Your task to perform on an android device: clear all cookies in the chrome app Image 0: 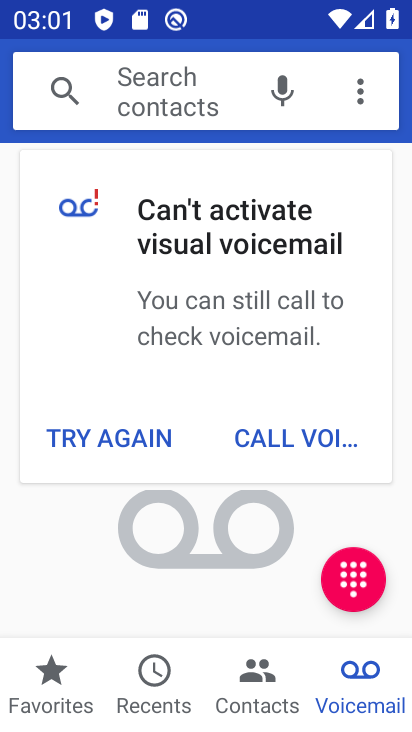
Step 0: press back button
Your task to perform on an android device: clear all cookies in the chrome app Image 1: 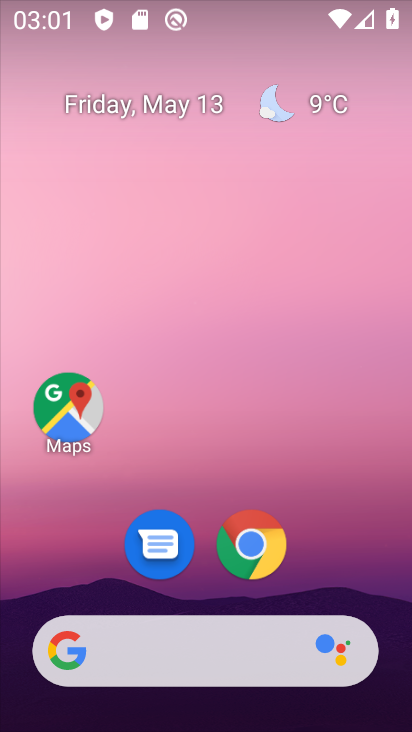
Step 1: drag from (321, 552) to (281, 20)
Your task to perform on an android device: clear all cookies in the chrome app Image 2: 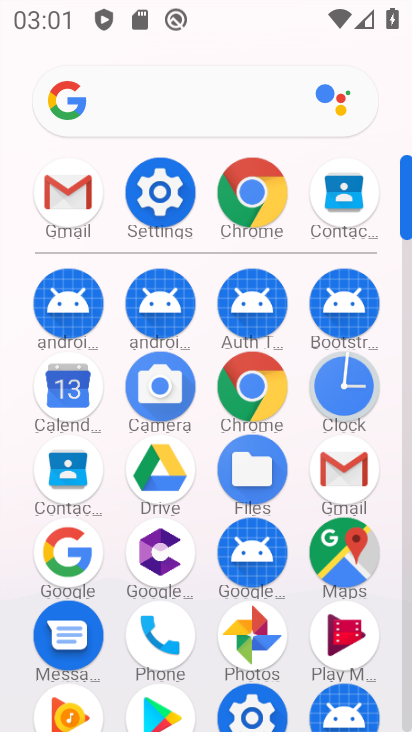
Step 2: drag from (22, 570) to (38, 320)
Your task to perform on an android device: clear all cookies in the chrome app Image 3: 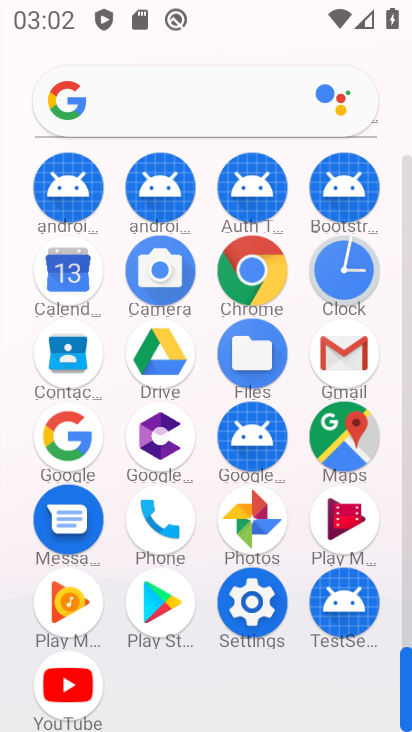
Step 3: click (248, 263)
Your task to perform on an android device: clear all cookies in the chrome app Image 4: 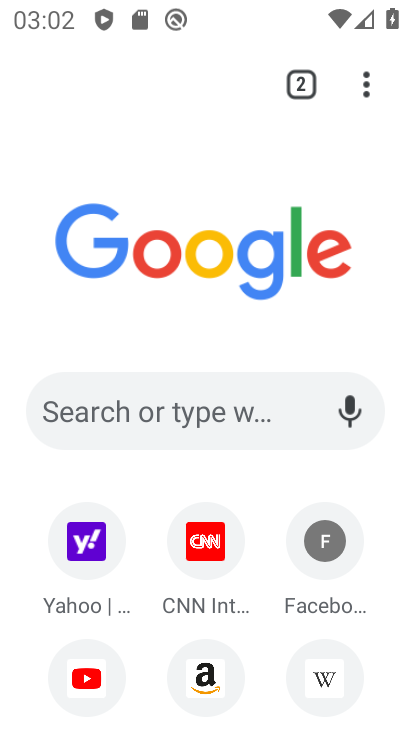
Step 4: drag from (367, 85) to (139, 585)
Your task to perform on an android device: clear all cookies in the chrome app Image 5: 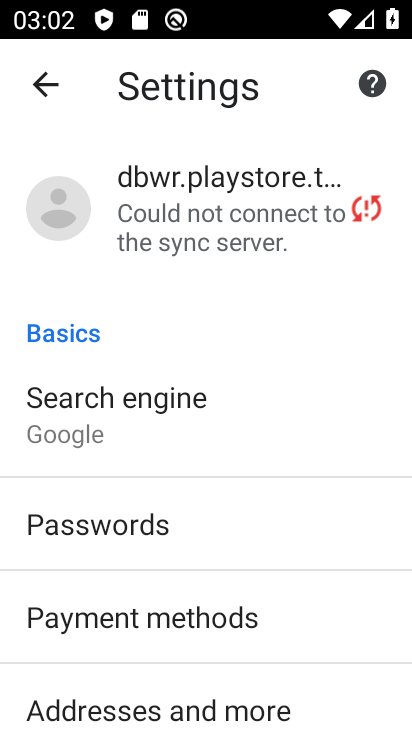
Step 5: drag from (222, 542) to (216, 199)
Your task to perform on an android device: clear all cookies in the chrome app Image 6: 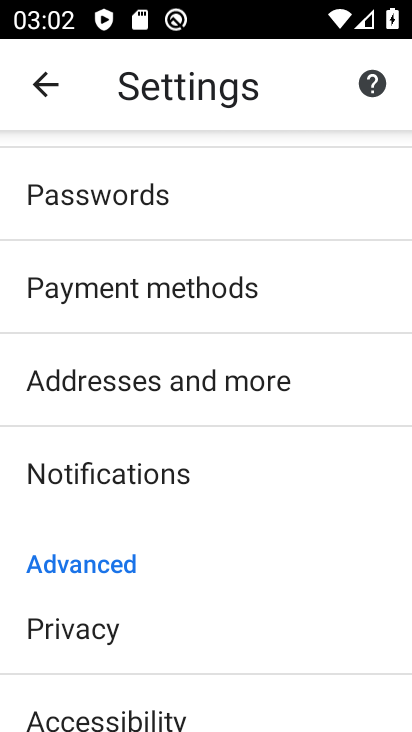
Step 6: drag from (233, 512) to (236, 268)
Your task to perform on an android device: clear all cookies in the chrome app Image 7: 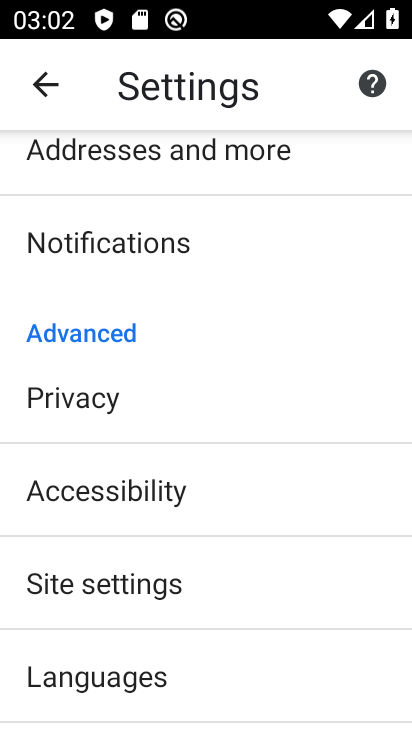
Step 7: drag from (222, 534) to (222, 232)
Your task to perform on an android device: clear all cookies in the chrome app Image 8: 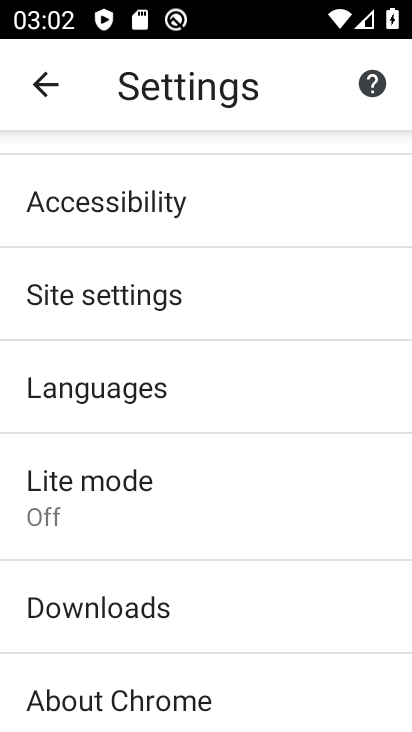
Step 8: drag from (187, 594) to (241, 203)
Your task to perform on an android device: clear all cookies in the chrome app Image 9: 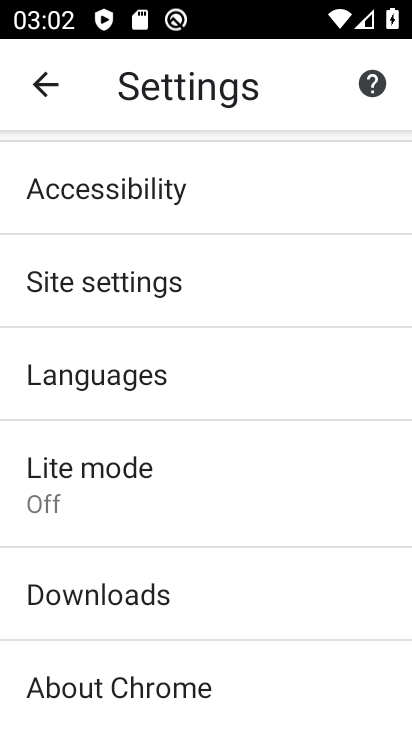
Step 9: drag from (241, 377) to (250, 639)
Your task to perform on an android device: clear all cookies in the chrome app Image 10: 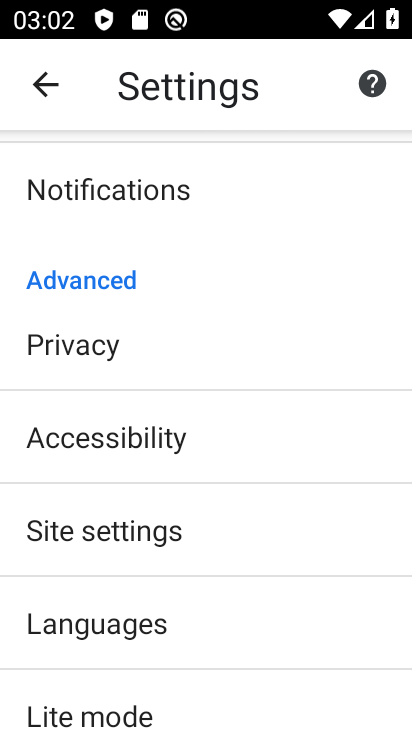
Step 10: drag from (243, 274) to (245, 636)
Your task to perform on an android device: clear all cookies in the chrome app Image 11: 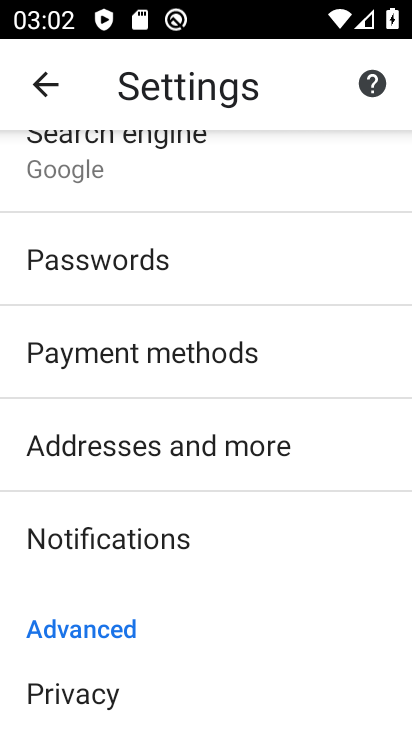
Step 11: drag from (258, 302) to (228, 608)
Your task to perform on an android device: clear all cookies in the chrome app Image 12: 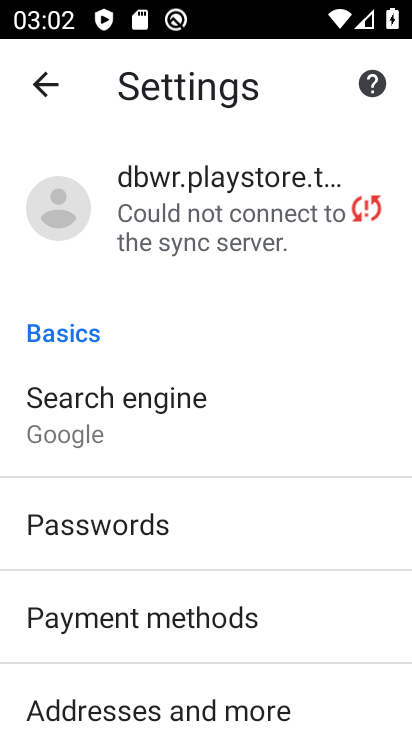
Step 12: drag from (279, 330) to (266, 607)
Your task to perform on an android device: clear all cookies in the chrome app Image 13: 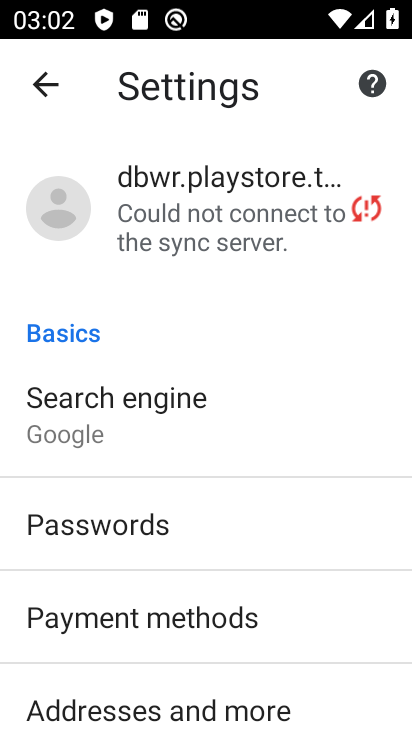
Step 13: drag from (251, 578) to (246, 217)
Your task to perform on an android device: clear all cookies in the chrome app Image 14: 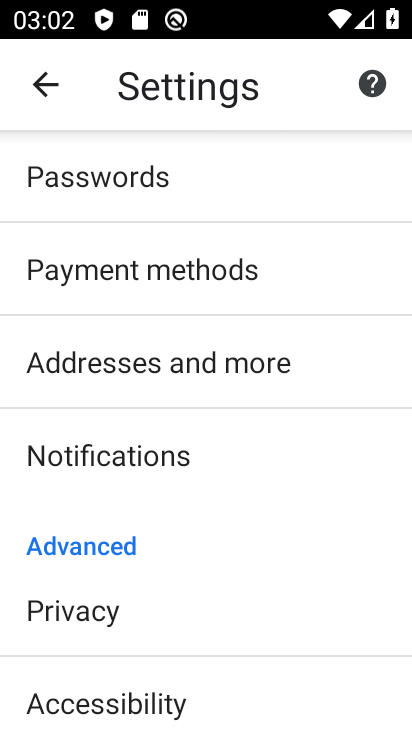
Step 14: drag from (247, 209) to (248, 586)
Your task to perform on an android device: clear all cookies in the chrome app Image 15: 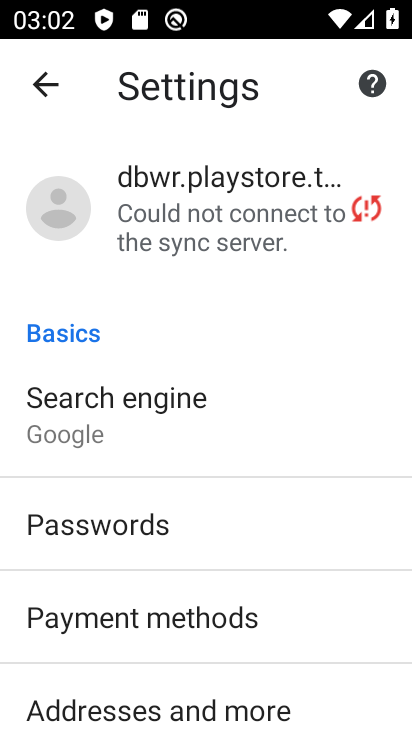
Step 15: drag from (204, 646) to (249, 168)
Your task to perform on an android device: clear all cookies in the chrome app Image 16: 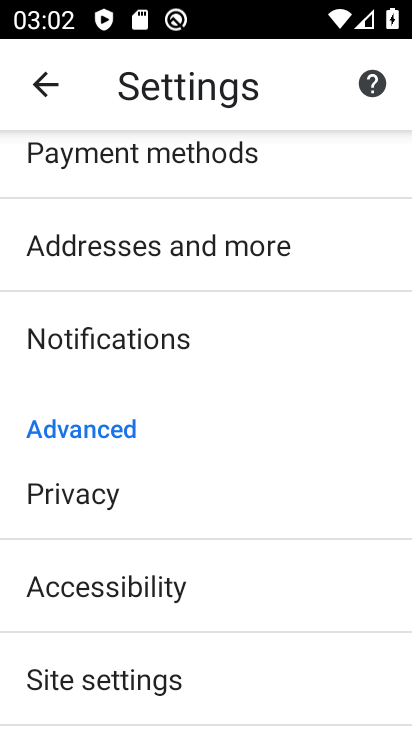
Step 16: click (105, 480)
Your task to perform on an android device: clear all cookies in the chrome app Image 17: 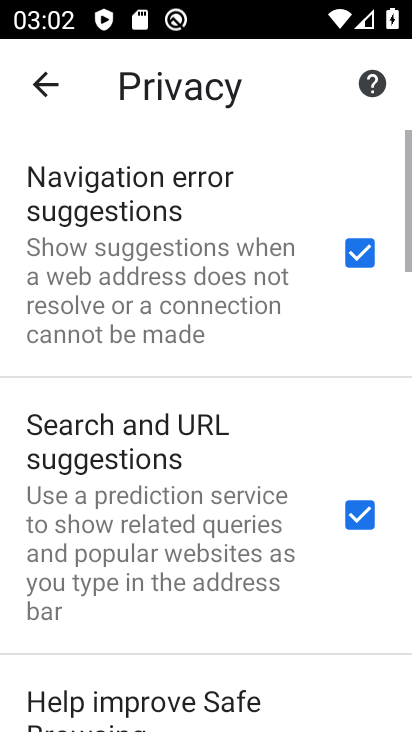
Step 17: drag from (176, 558) to (217, 136)
Your task to perform on an android device: clear all cookies in the chrome app Image 18: 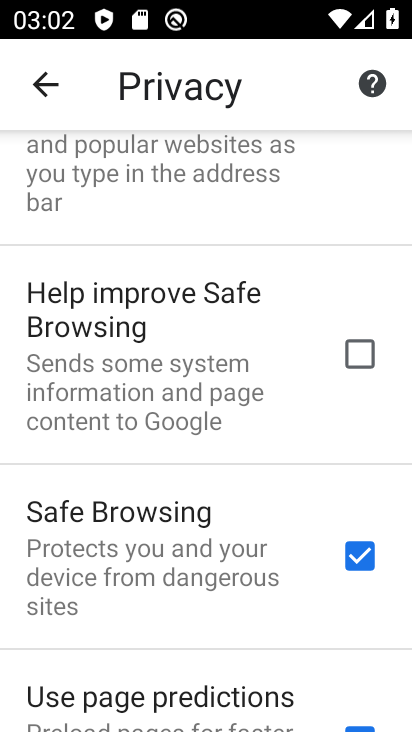
Step 18: drag from (176, 594) to (183, 166)
Your task to perform on an android device: clear all cookies in the chrome app Image 19: 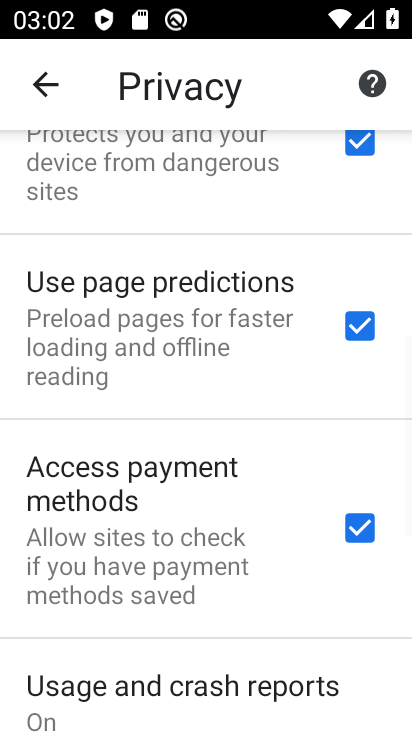
Step 19: drag from (158, 583) to (190, 153)
Your task to perform on an android device: clear all cookies in the chrome app Image 20: 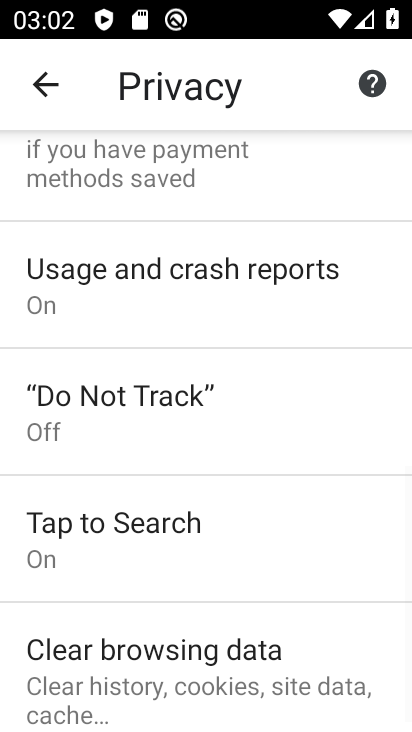
Step 20: drag from (203, 554) to (212, 167)
Your task to perform on an android device: clear all cookies in the chrome app Image 21: 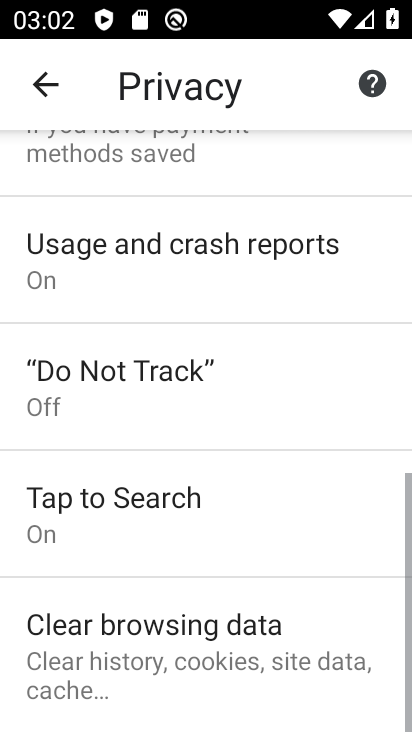
Step 21: click (137, 675)
Your task to perform on an android device: clear all cookies in the chrome app Image 22: 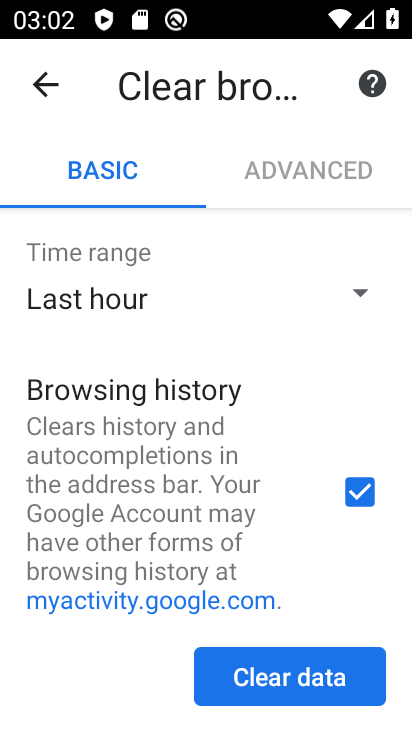
Step 22: drag from (133, 565) to (164, 264)
Your task to perform on an android device: clear all cookies in the chrome app Image 23: 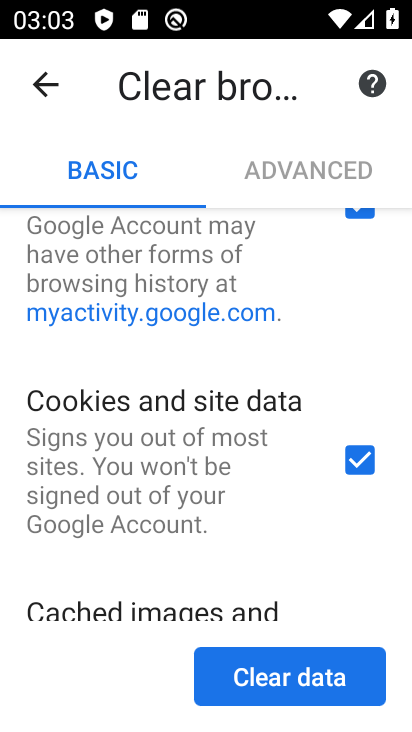
Step 23: drag from (191, 338) to (186, 552)
Your task to perform on an android device: clear all cookies in the chrome app Image 24: 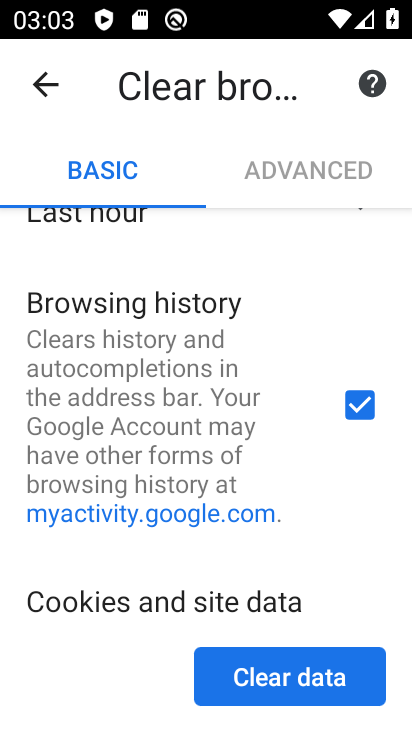
Step 24: click (352, 412)
Your task to perform on an android device: clear all cookies in the chrome app Image 25: 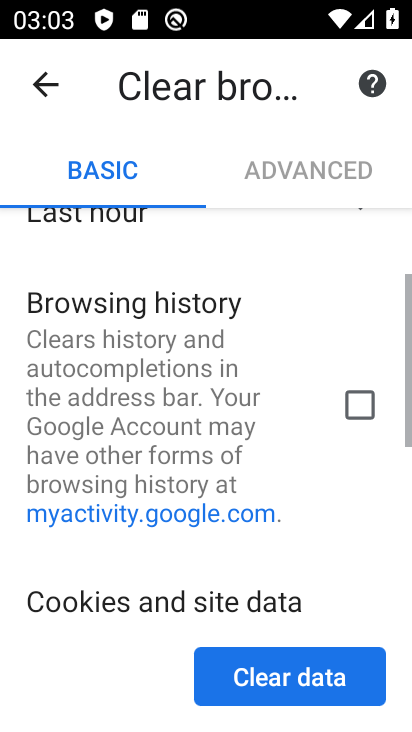
Step 25: click (298, 686)
Your task to perform on an android device: clear all cookies in the chrome app Image 26: 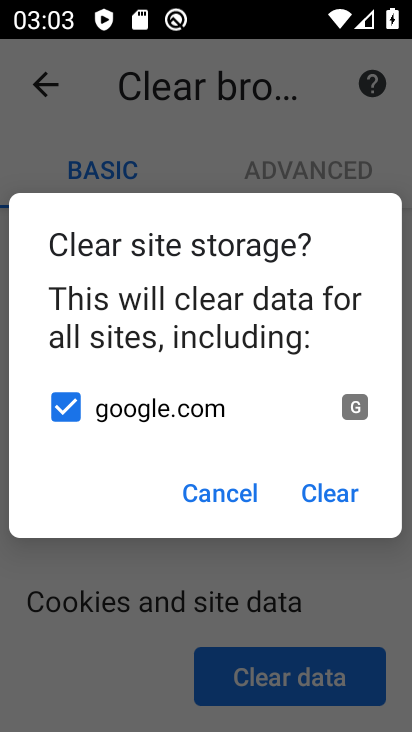
Step 26: click (335, 494)
Your task to perform on an android device: clear all cookies in the chrome app Image 27: 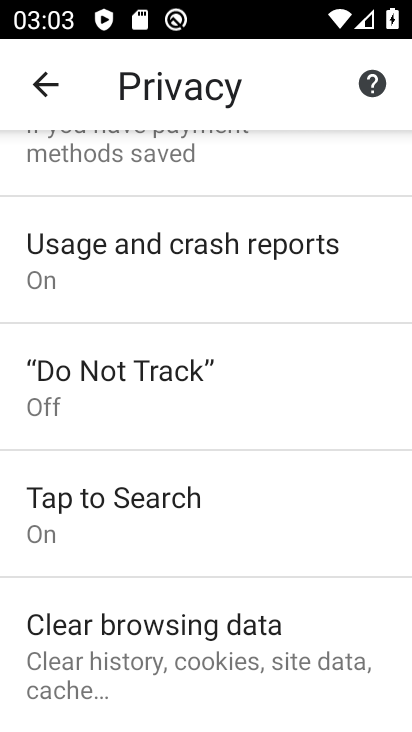
Step 27: task complete